Your task to perform on an android device: toggle data saver in the chrome app Image 0: 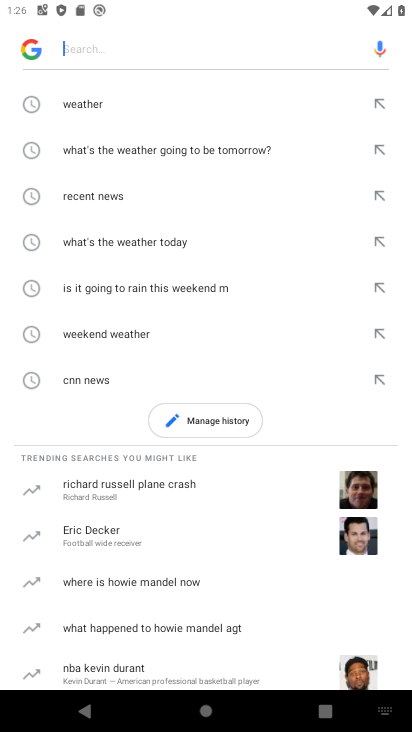
Step 0: press home button
Your task to perform on an android device: toggle data saver in the chrome app Image 1: 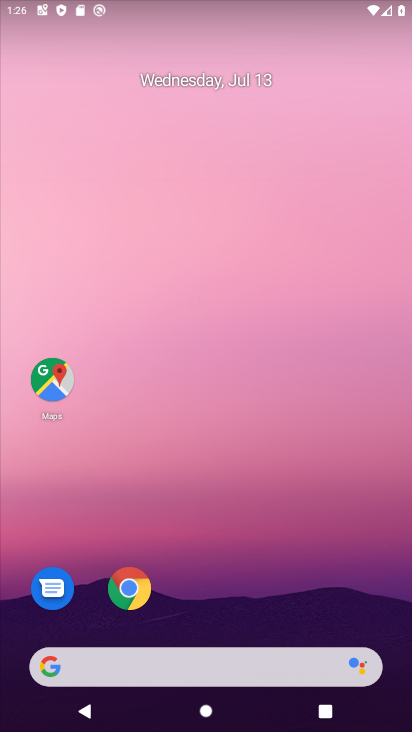
Step 1: click (134, 589)
Your task to perform on an android device: toggle data saver in the chrome app Image 2: 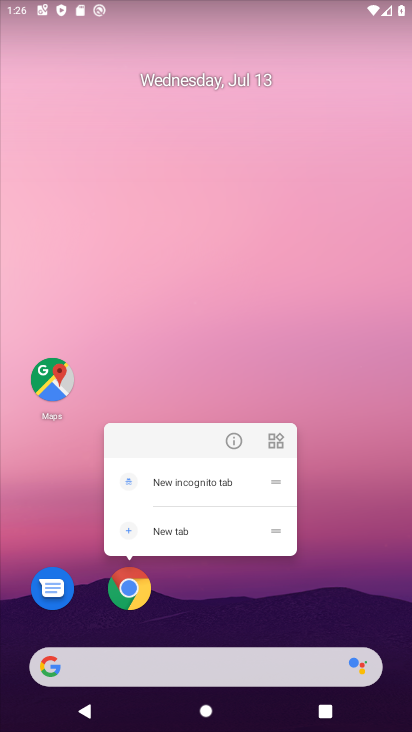
Step 2: click (127, 594)
Your task to perform on an android device: toggle data saver in the chrome app Image 3: 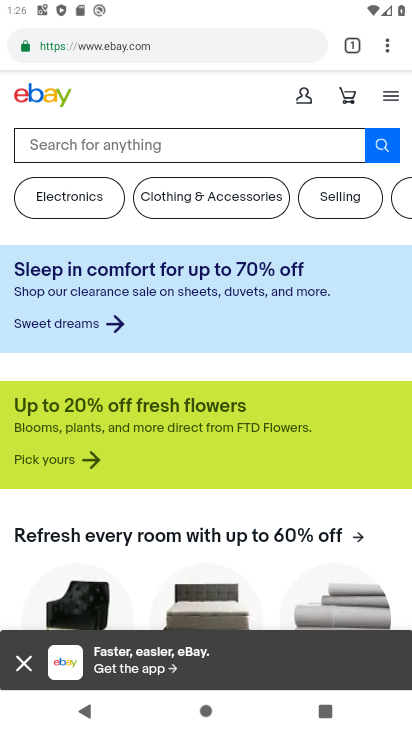
Step 3: click (388, 46)
Your task to perform on an android device: toggle data saver in the chrome app Image 4: 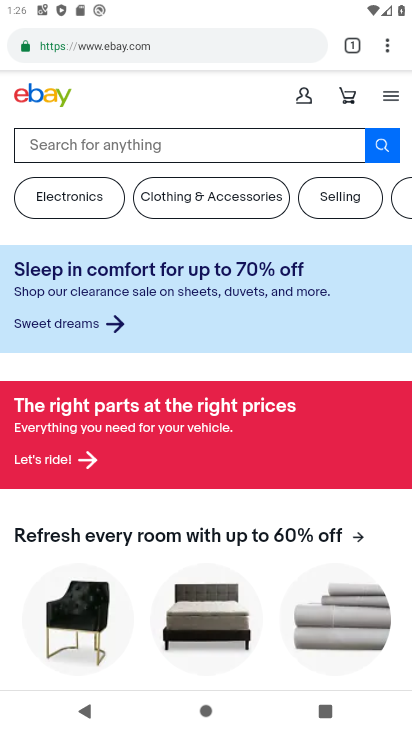
Step 4: click (385, 43)
Your task to perform on an android device: toggle data saver in the chrome app Image 5: 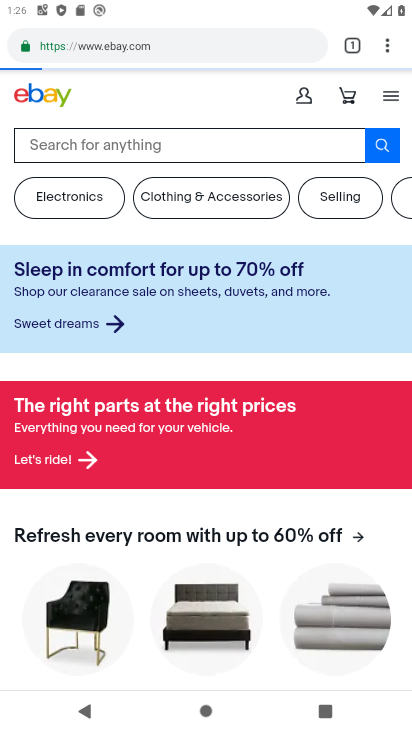
Step 5: click (386, 44)
Your task to perform on an android device: toggle data saver in the chrome app Image 6: 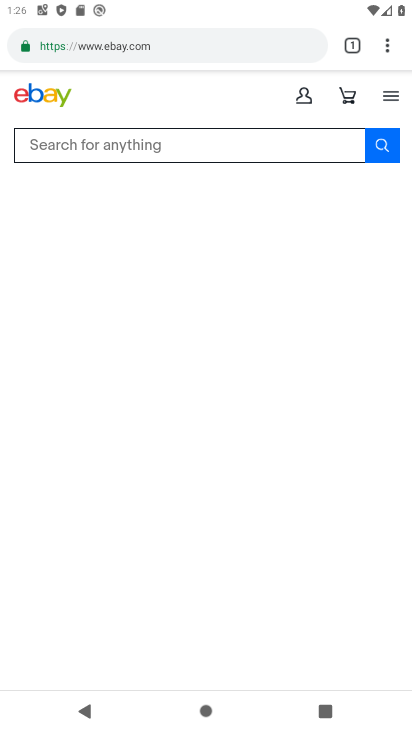
Step 6: click (393, 48)
Your task to perform on an android device: toggle data saver in the chrome app Image 7: 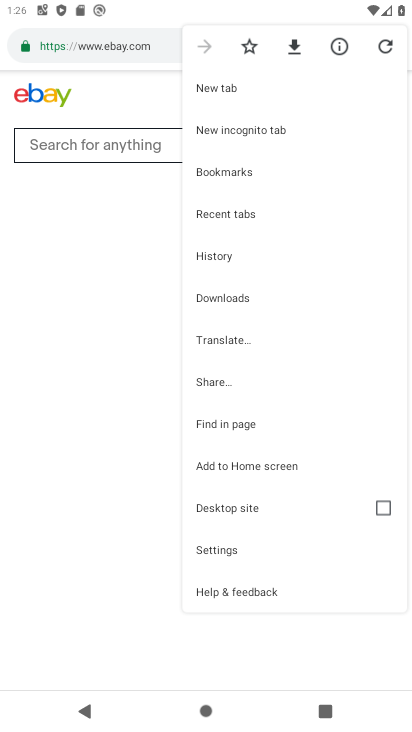
Step 7: click (229, 544)
Your task to perform on an android device: toggle data saver in the chrome app Image 8: 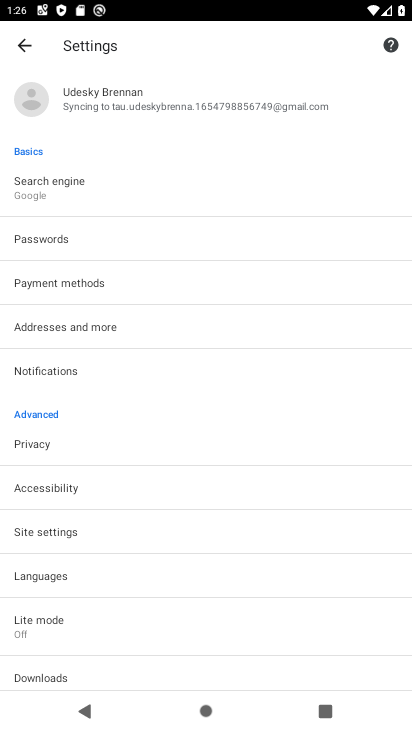
Step 8: click (47, 627)
Your task to perform on an android device: toggle data saver in the chrome app Image 9: 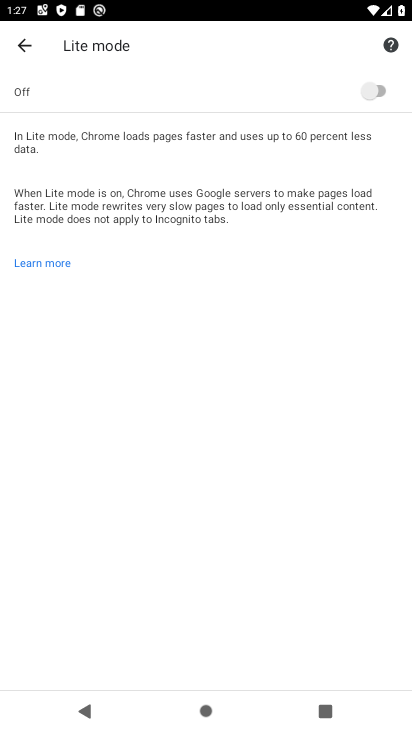
Step 9: click (375, 89)
Your task to perform on an android device: toggle data saver in the chrome app Image 10: 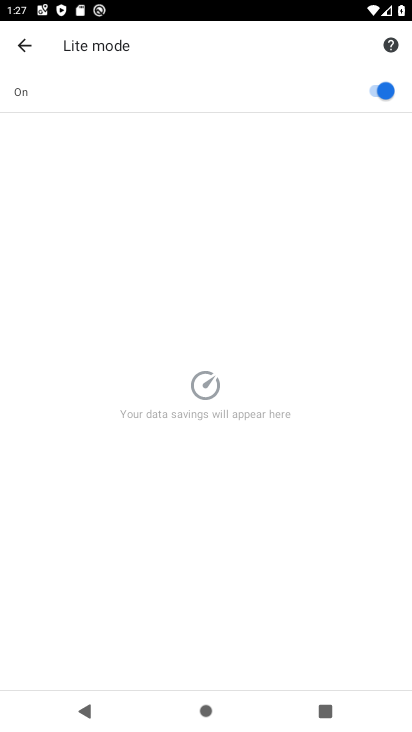
Step 10: task complete